Your task to perform on an android device: Go to accessibility settings Image 0: 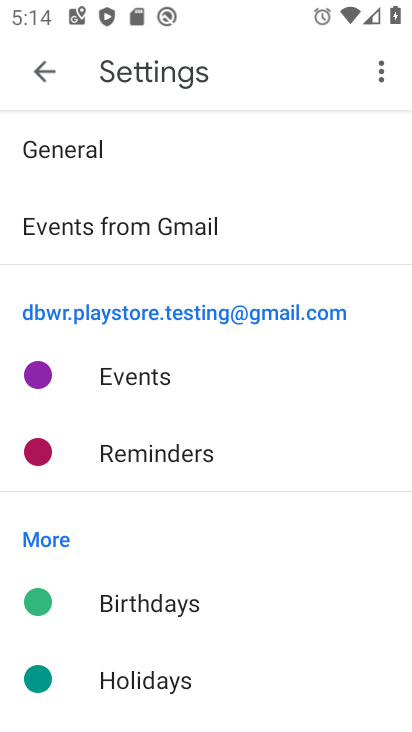
Step 0: press home button
Your task to perform on an android device: Go to accessibility settings Image 1: 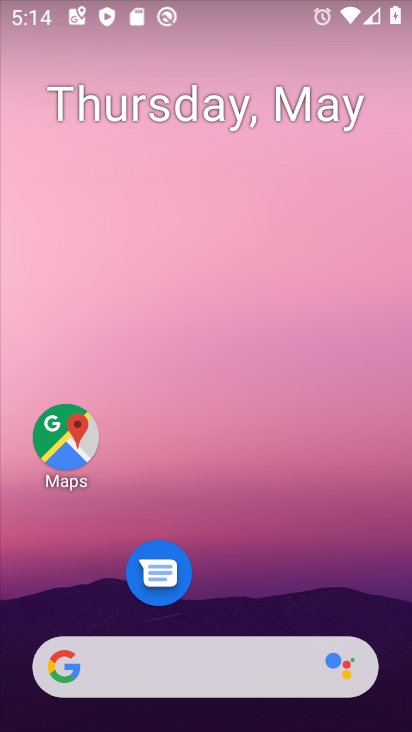
Step 1: drag from (251, 389) to (244, 93)
Your task to perform on an android device: Go to accessibility settings Image 2: 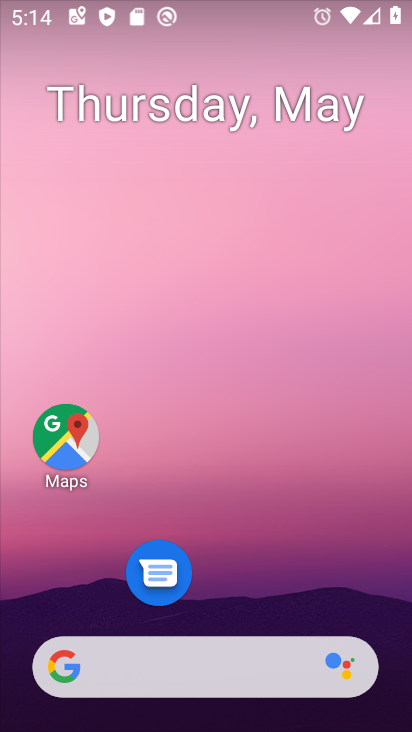
Step 2: drag from (218, 605) to (198, 14)
Your task to perform on an android device: Go to accessibility settings Image 3: 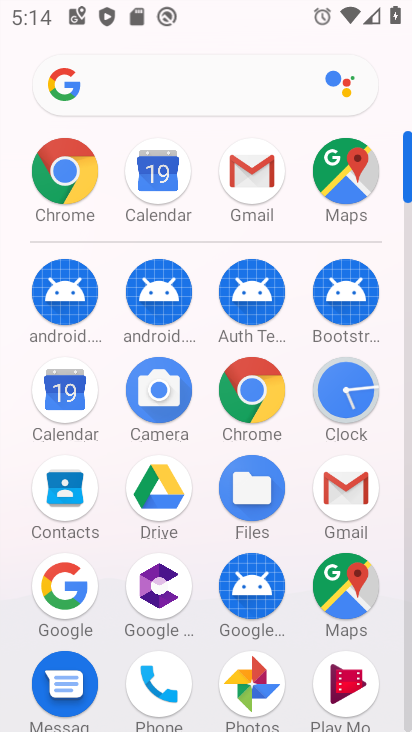
Step 3: drag from (195, 615) to (210, 290)
Your task to perform on an android device: Go to accessibility settings Image 4: 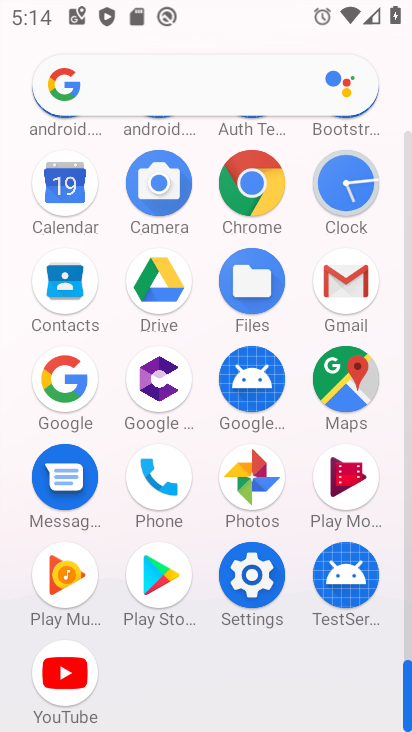
Step 4: click (250, 564)
Your task to perform on an android device: Go to accessibility settings Image 5: 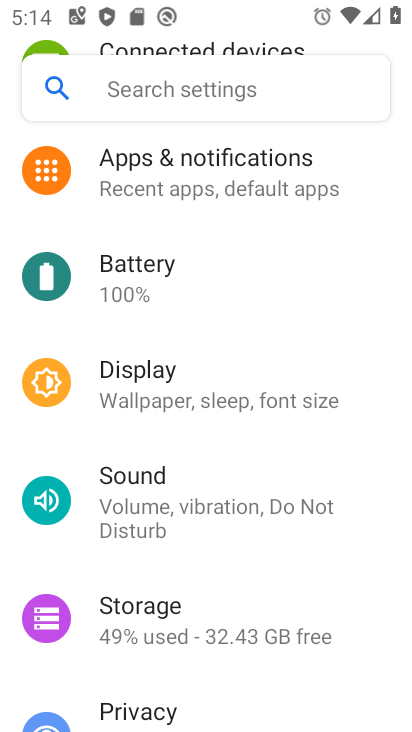
Step 5: drag from (220, 641) to (151, 170)
Your task to perform on an android device: Go to accessibility settings Image 6: 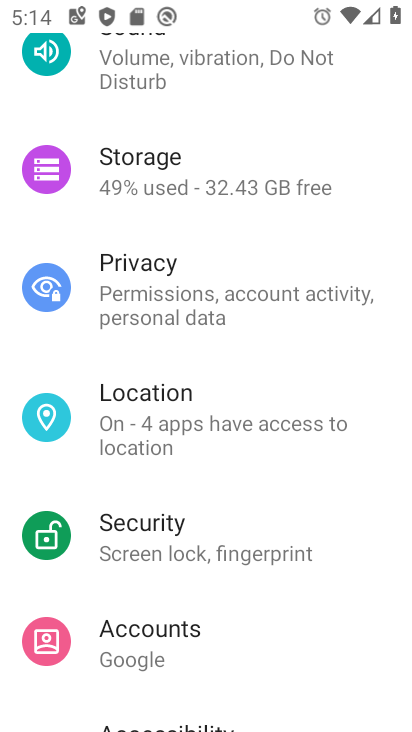
Step 6: drag from (155, 565) to (209, 169)
Your task to perform on an android device: Go to accessibility settings Image 7: 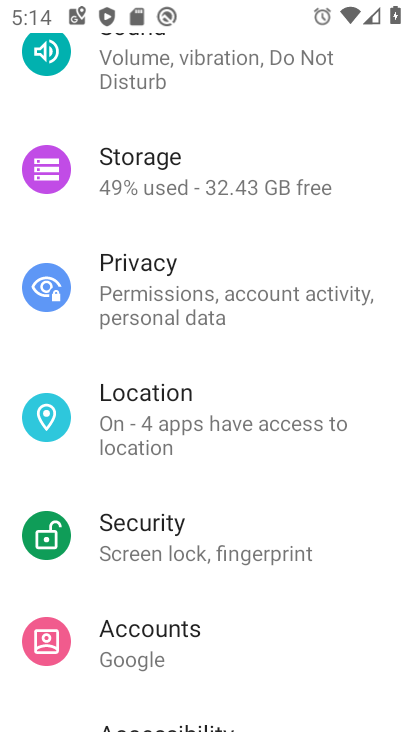
Step 7: drag from (189, 460) to (199, 376)
Your task to perform on an android device: Go to accessibility settings Image 8: 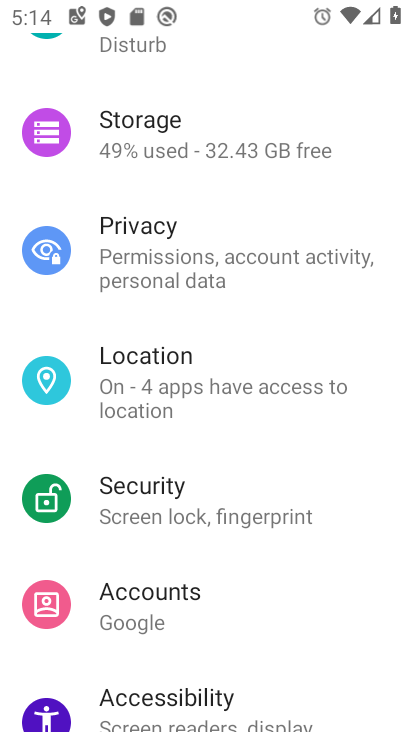
Step 8: click (145, 711)
Your task to perform on an android device: Go to accessibility settings Image 9: 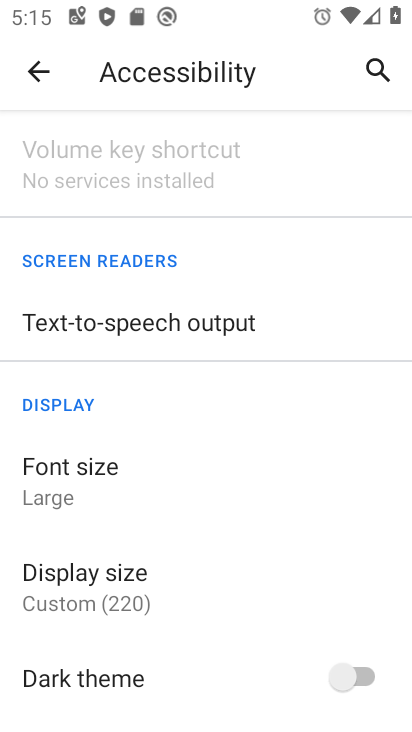
Step 9: task complete